Your task to perform on an android device: Open Google Chrome Image 0: 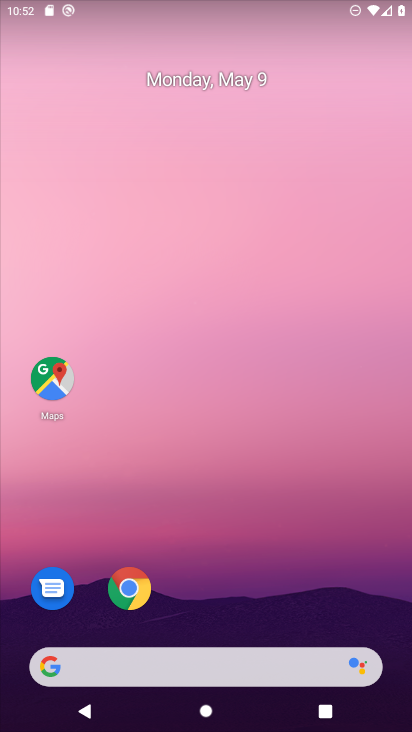
Step 0: click (134, 605)
Your task to perform on an android device: Open Google Chrome Image 1: 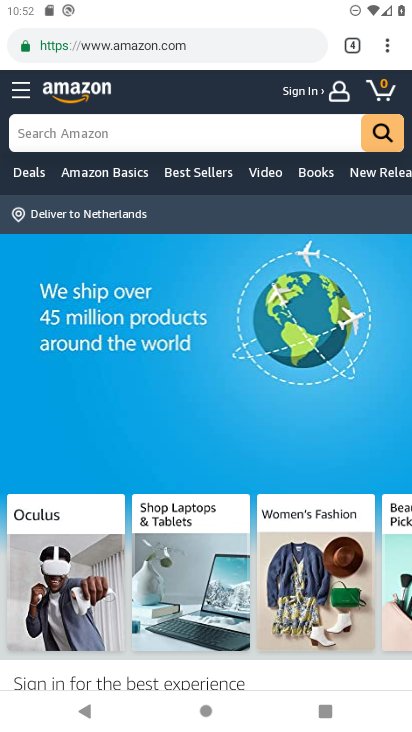
Step 1: task complete